Your task to perform on an android device: Open ESPN.com Image 0: 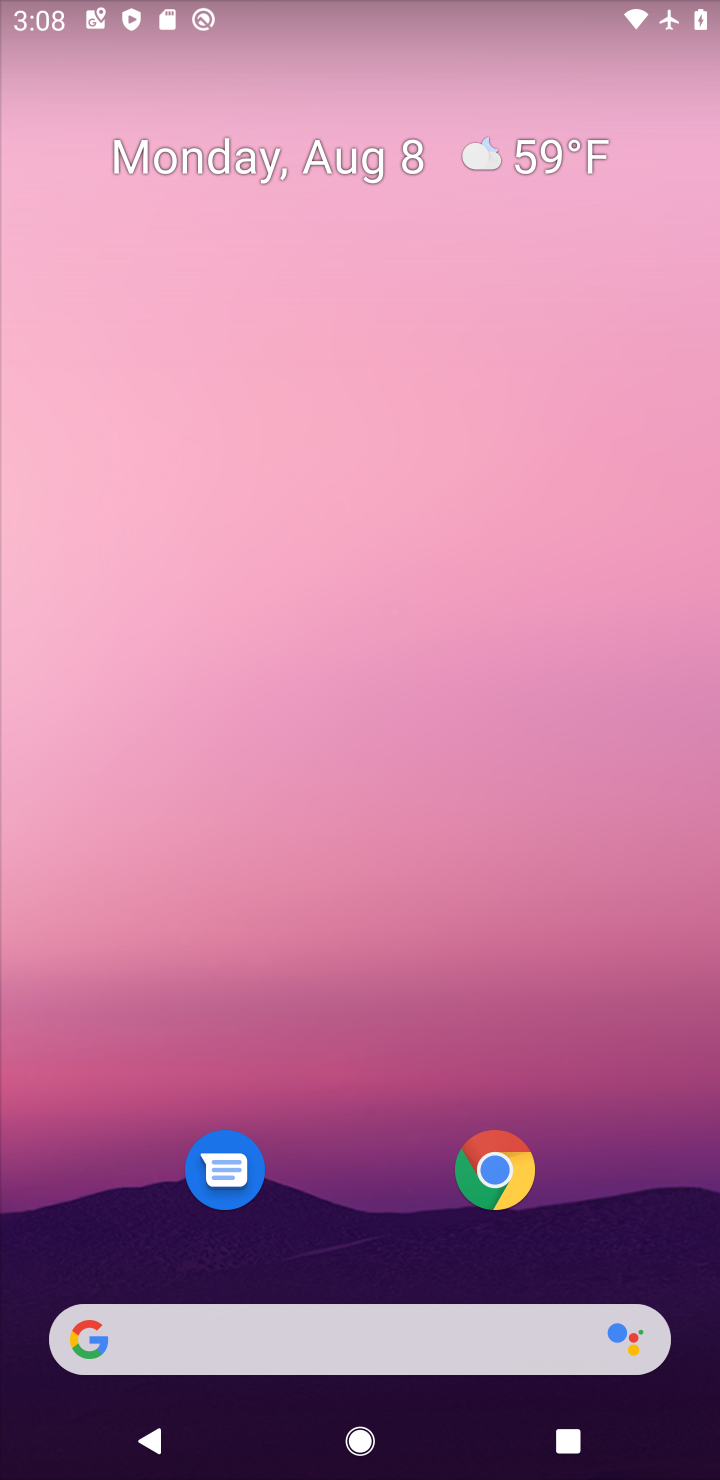
Step 0: click (504, 1159)
Your task to perform on an android device: Open ESPN.com Image 1: 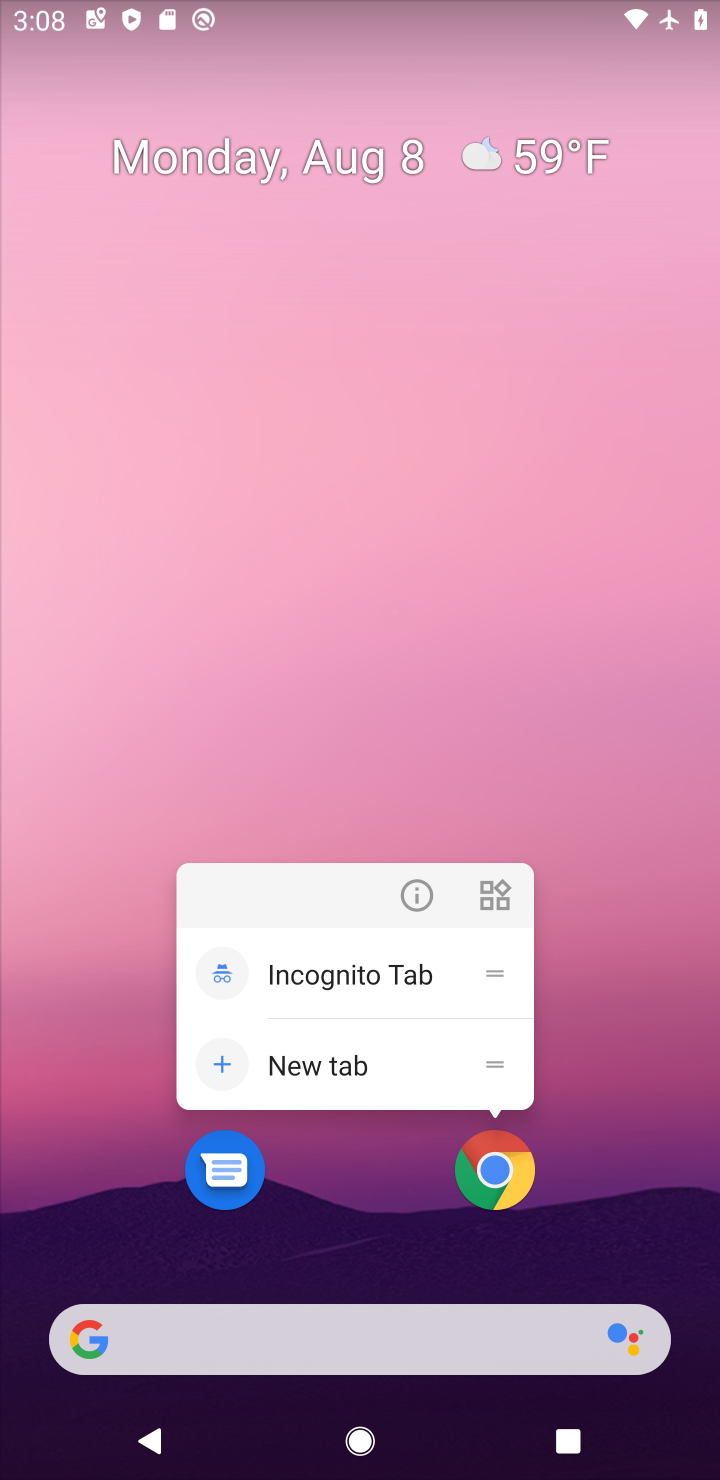
Step 1: click (504, 1159)
Your task to perform on an android device: Open ESPN.com Image 2: 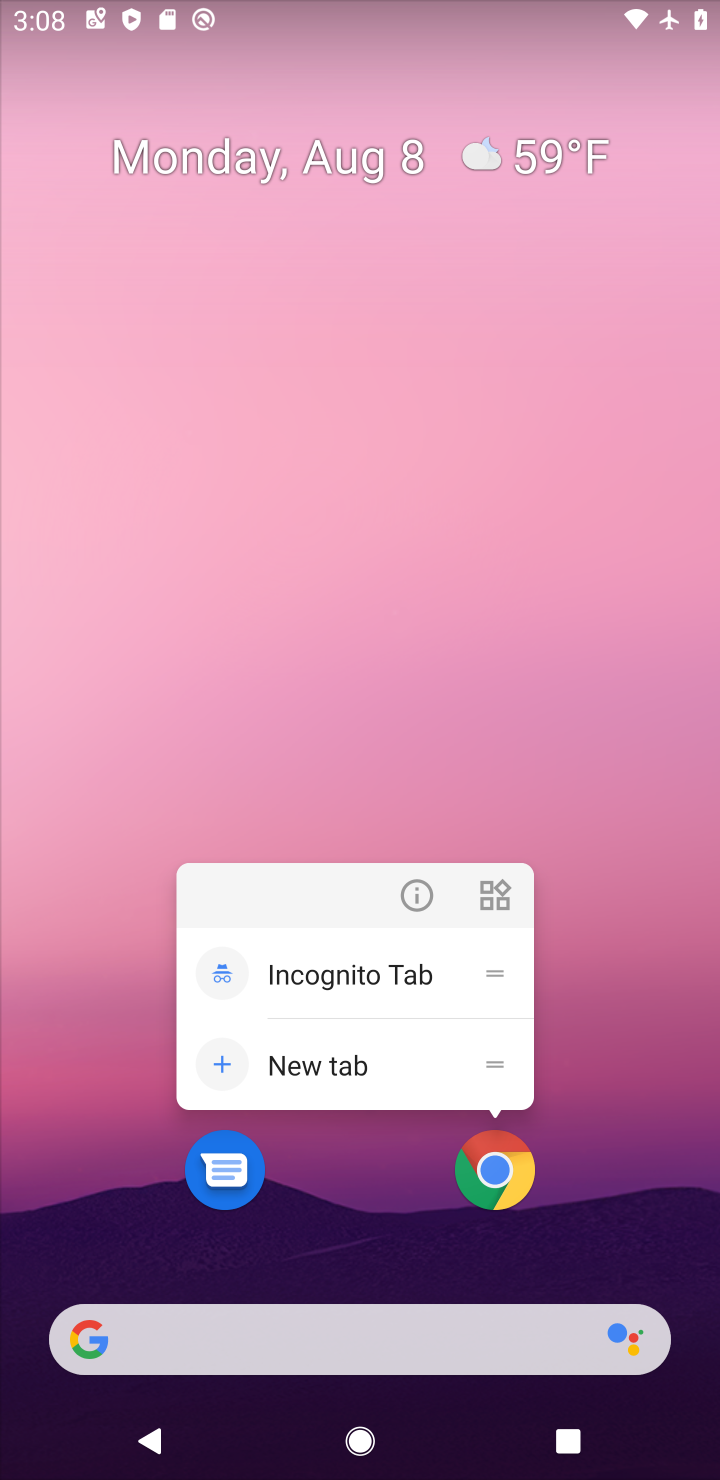
Step 2: click (504, 1159)
Your task to perform on an android device: Open ESPN.com Image 3: 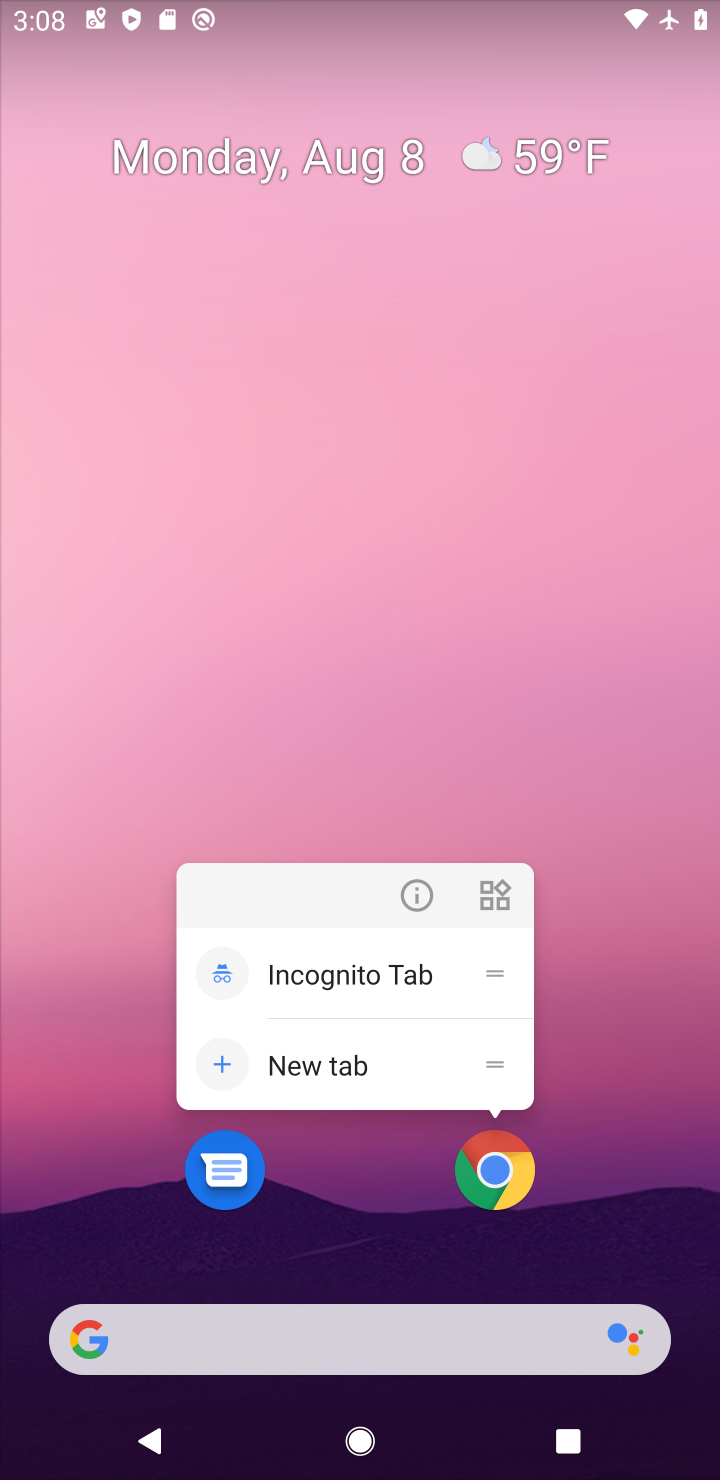
Step 3: click (504, 1159)
Your task to perform on an android device: Open ESPN.com Image 4: 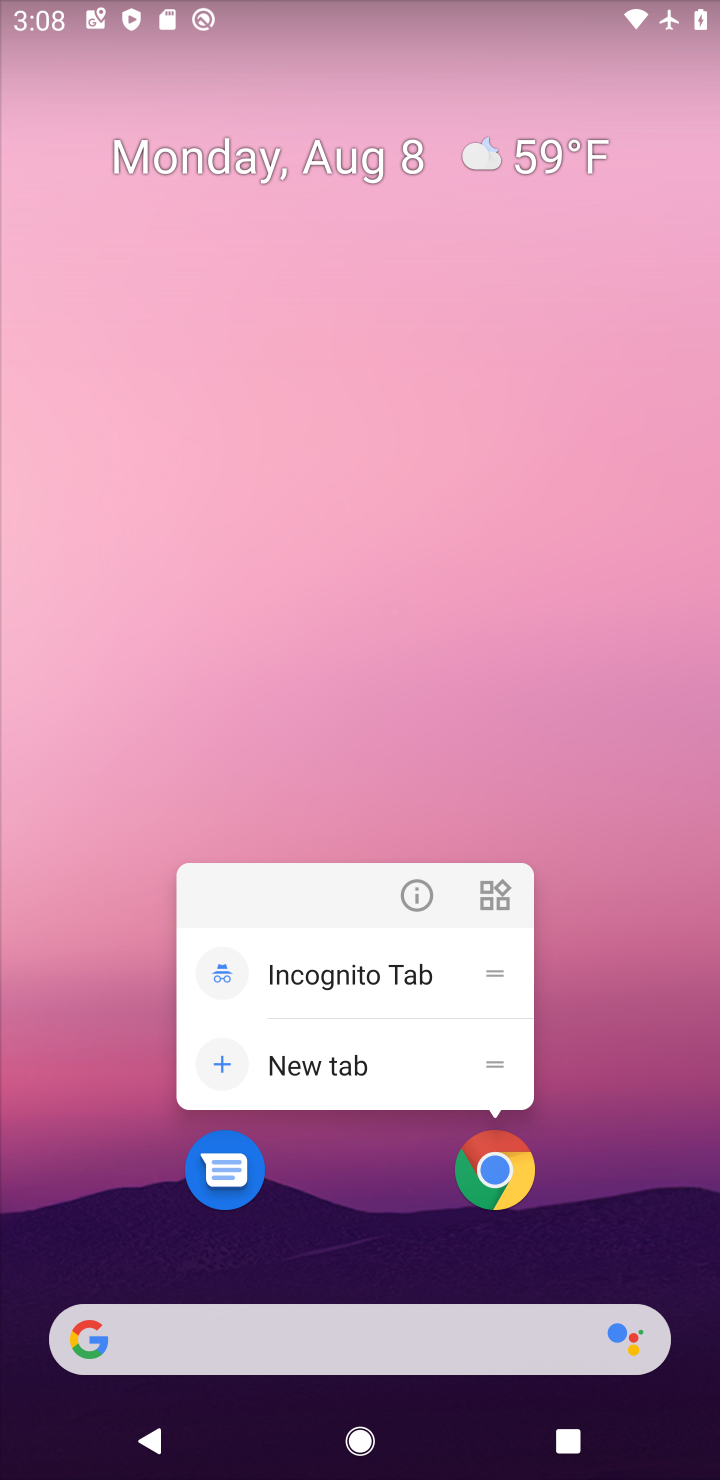
Step 4: click (504, 1159)
Your task to perform on an android device: Open ESPN.com Image 5: 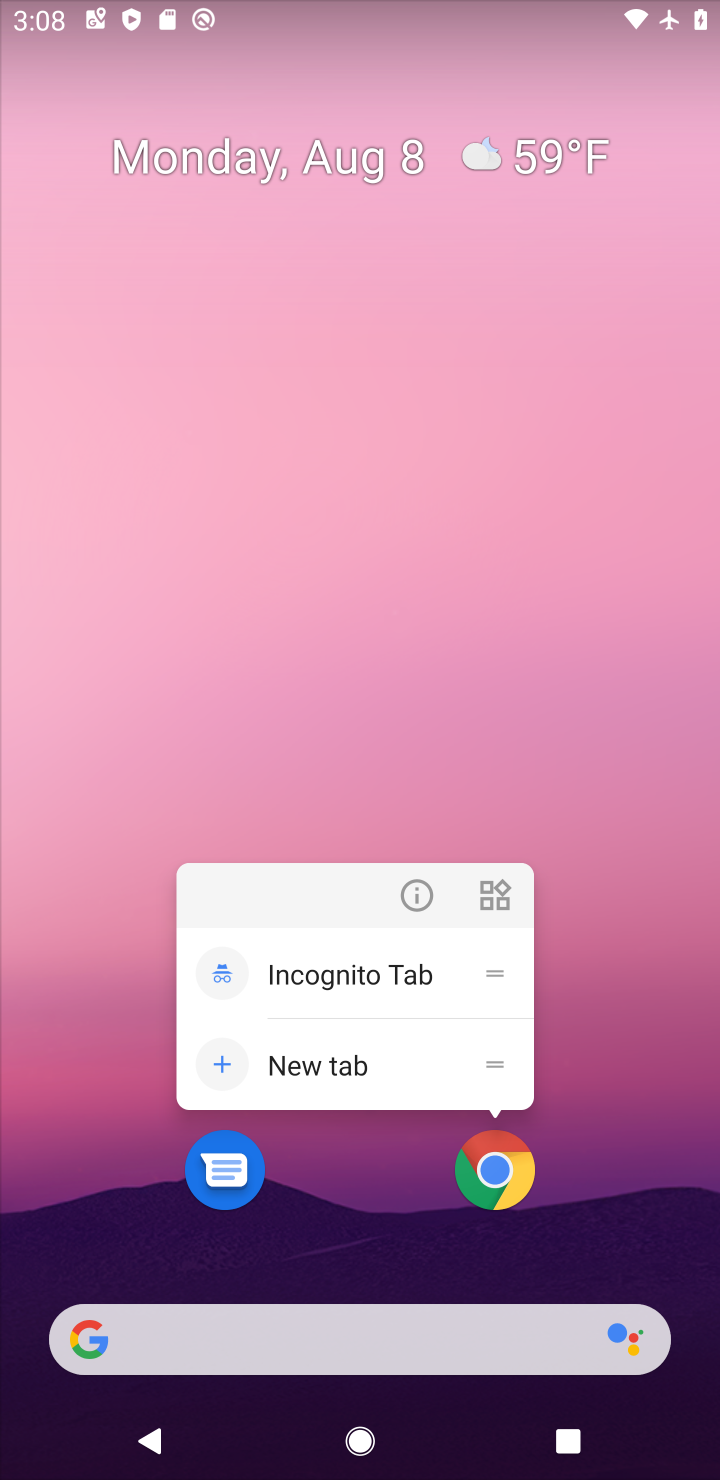
Step 5: click (504, 1159)
Your task to perform on an android device: Open ESPN.com Image 6: 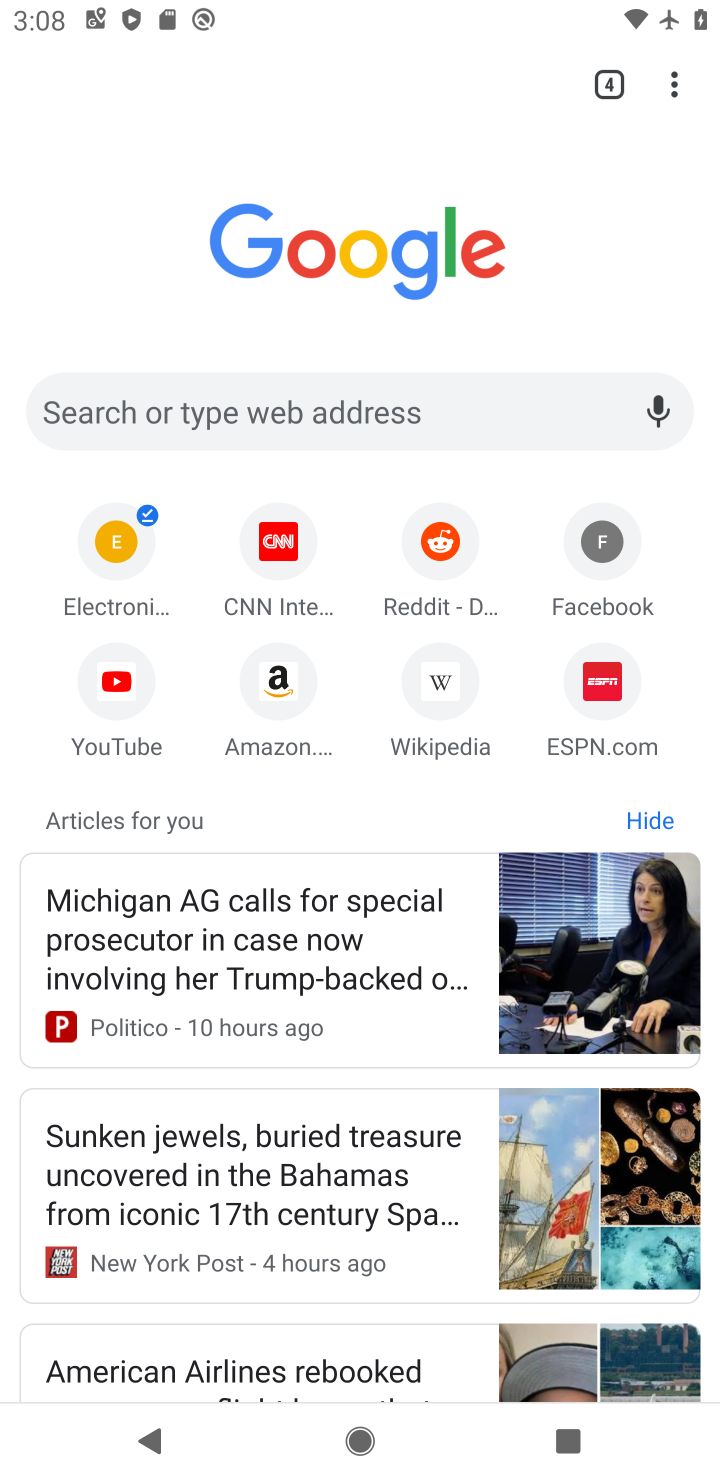
Step 6: click (605, 718)
Your task to perform on an android device: Open ESPN.com Image 7: 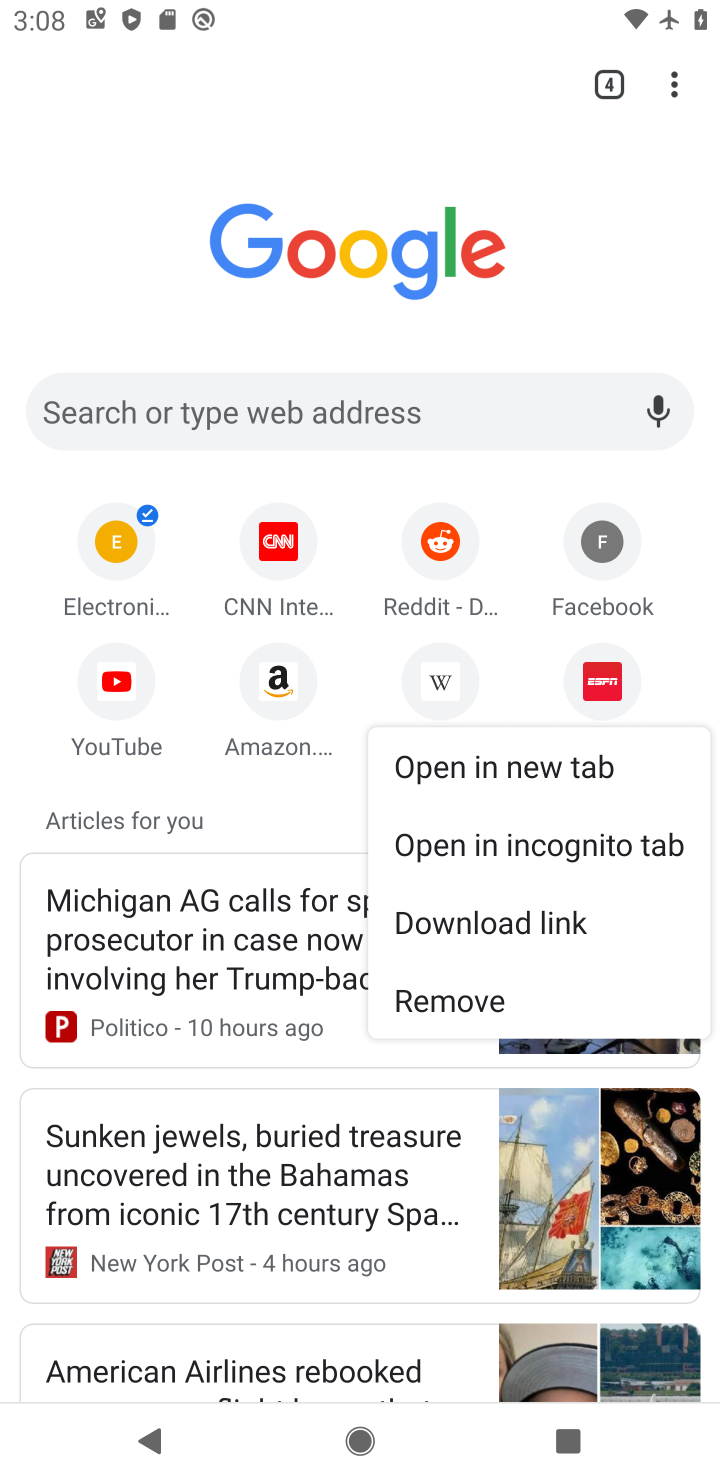
Step 7: click (585, 678)
Your task to perform on an android device: Open ESPN.com Image 8: 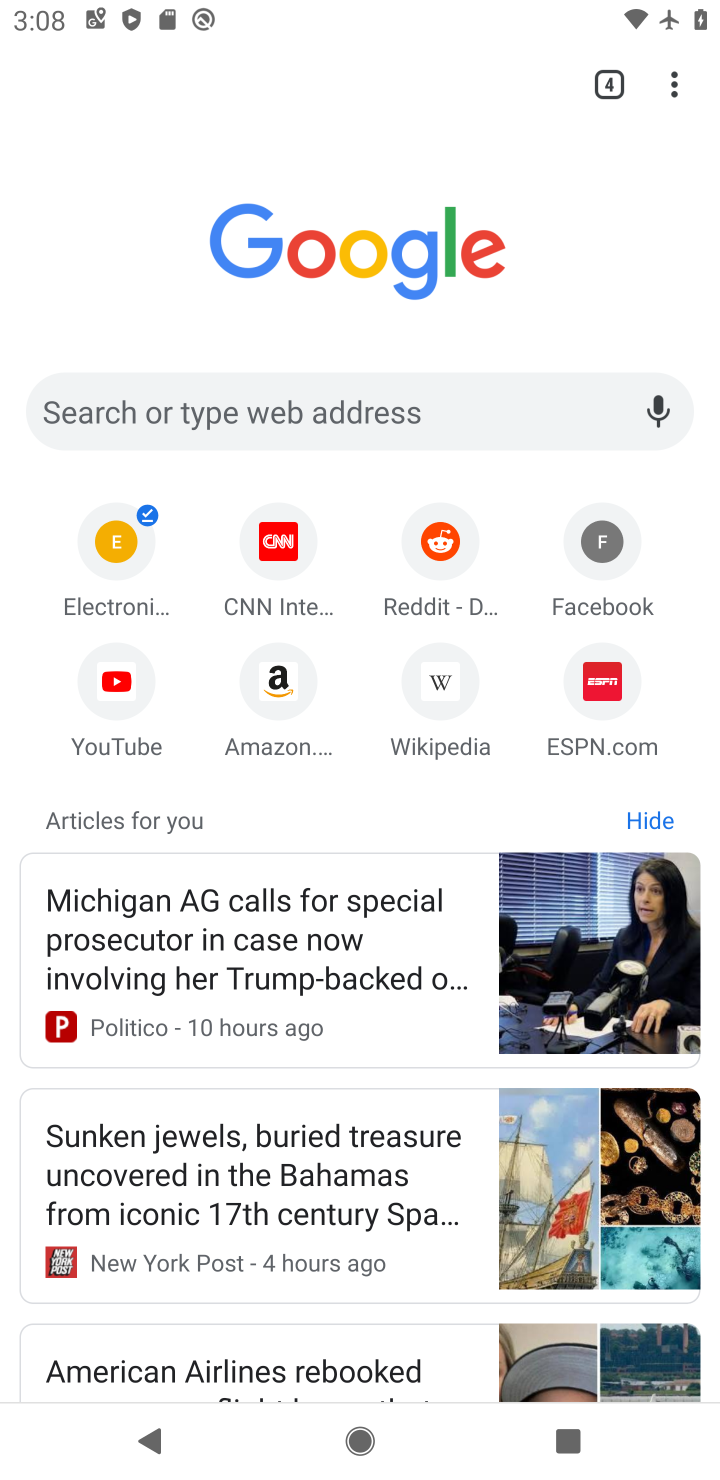
Step 8: click (585, 678)
Your task to perform on an android device: Open ESPN.com Image 9: 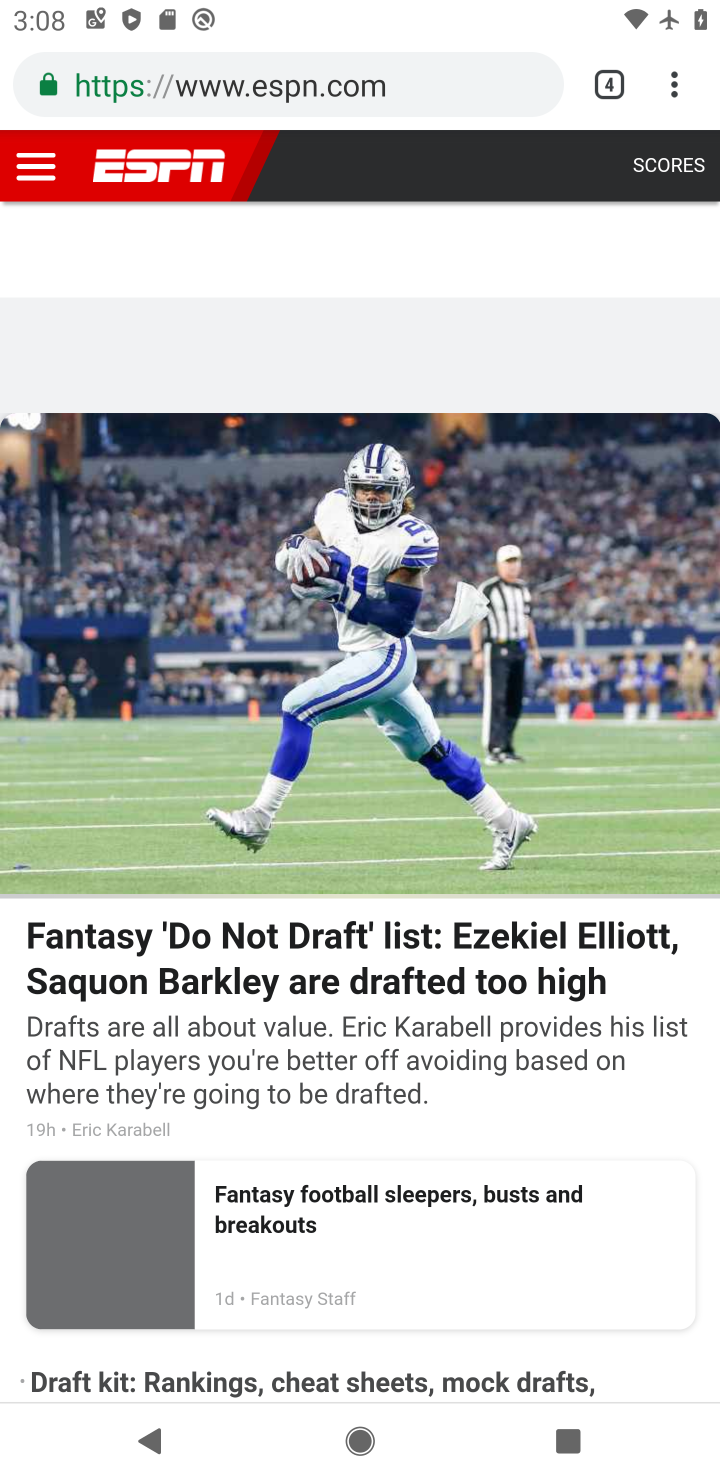
Step 9: task complete